Your task to perform on an android device: toggle airplane mode Image 0: 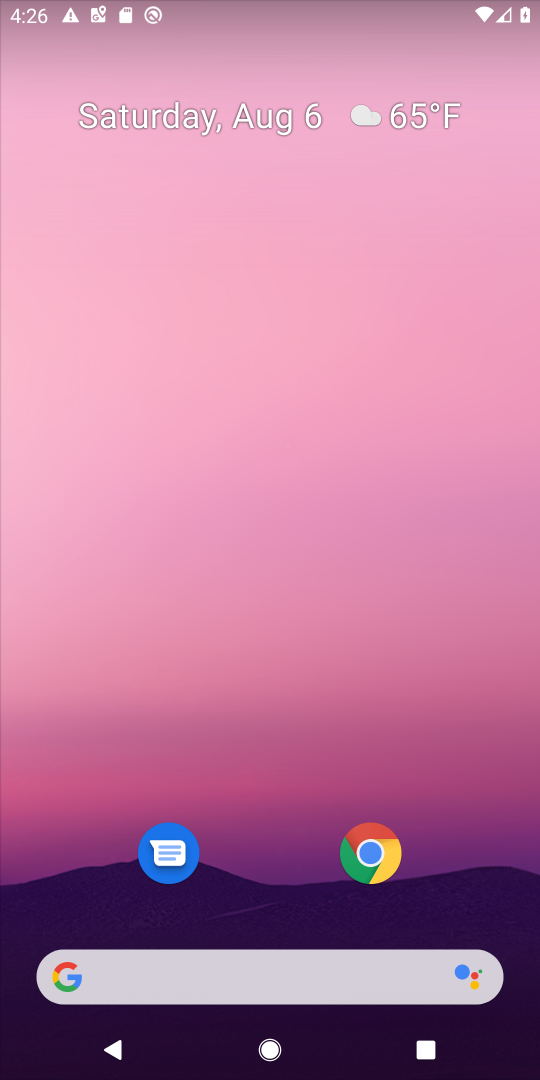
Step 0: drag from (449, 26) to (307, 809)
Your task to perform on an android device: toggle airplane mode Image 1: 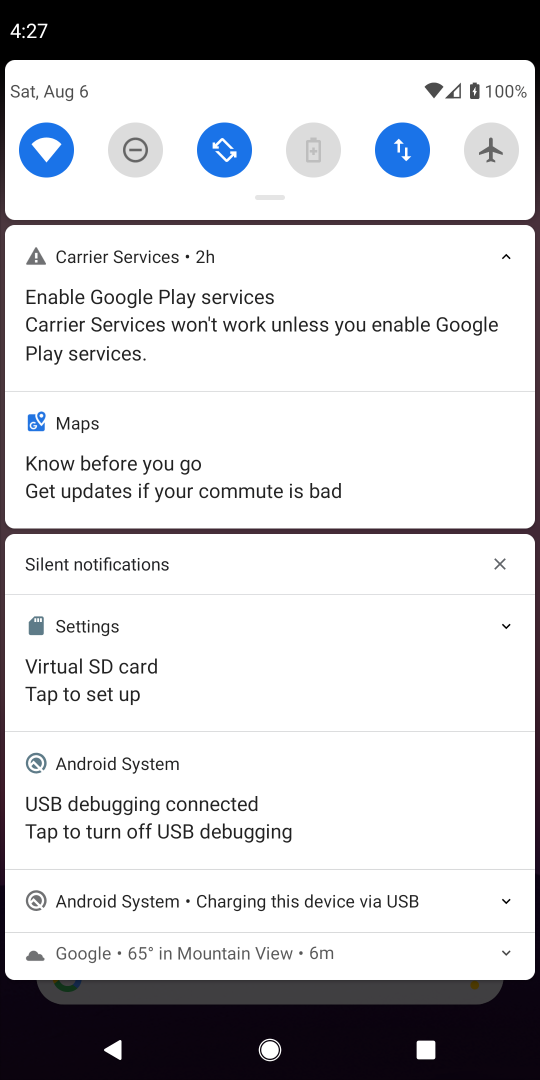
Step 1: click (490, 149)
Your task to perform on an android device: toggle airplane mode Image 2: 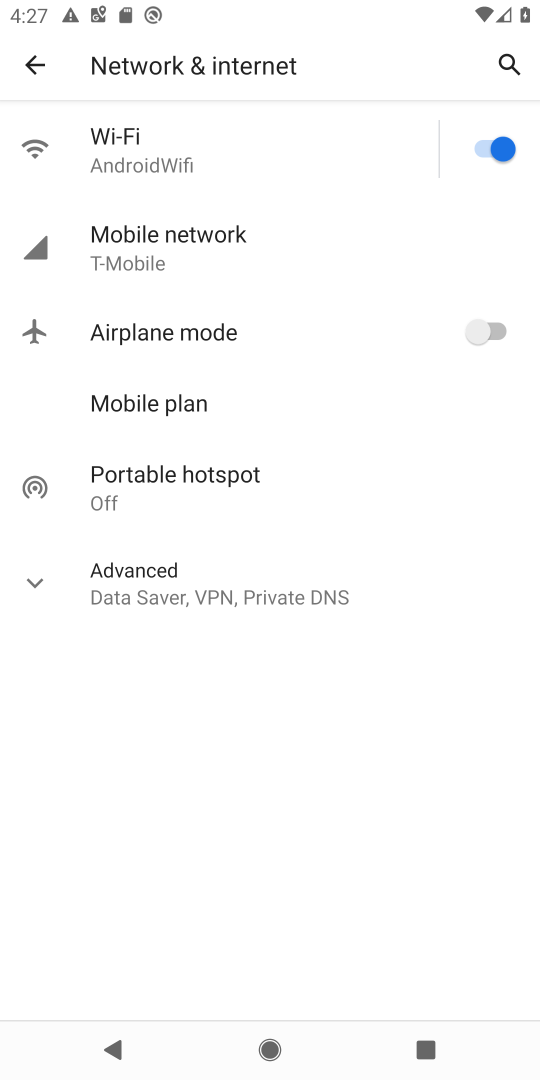
Step 2: click (495, 330)
Your task to perform on an android device: toggle airplane mode Image 3: 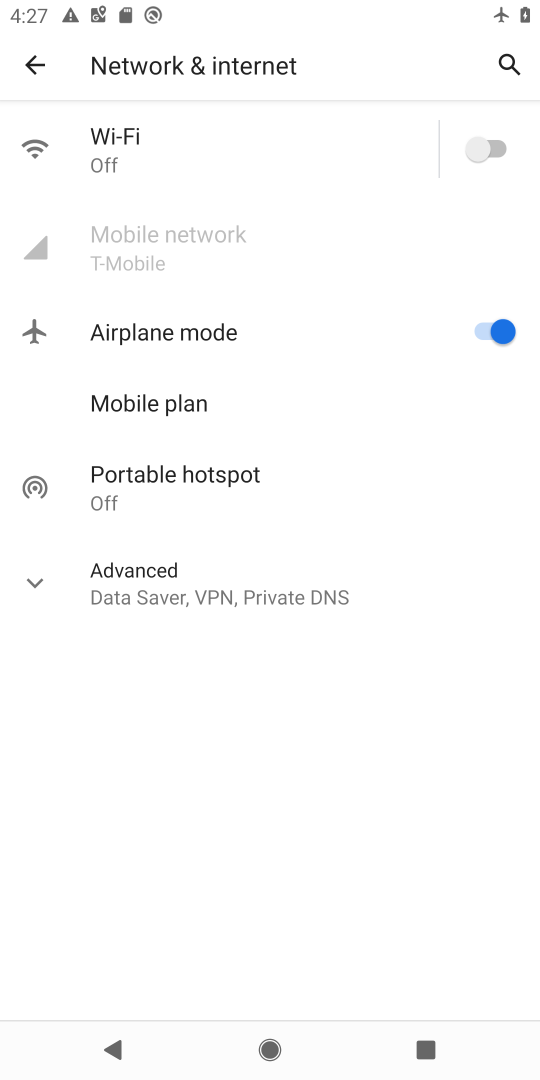
Step 3: task complete